Your task to perform on an android device: Open my contact list Image 0: 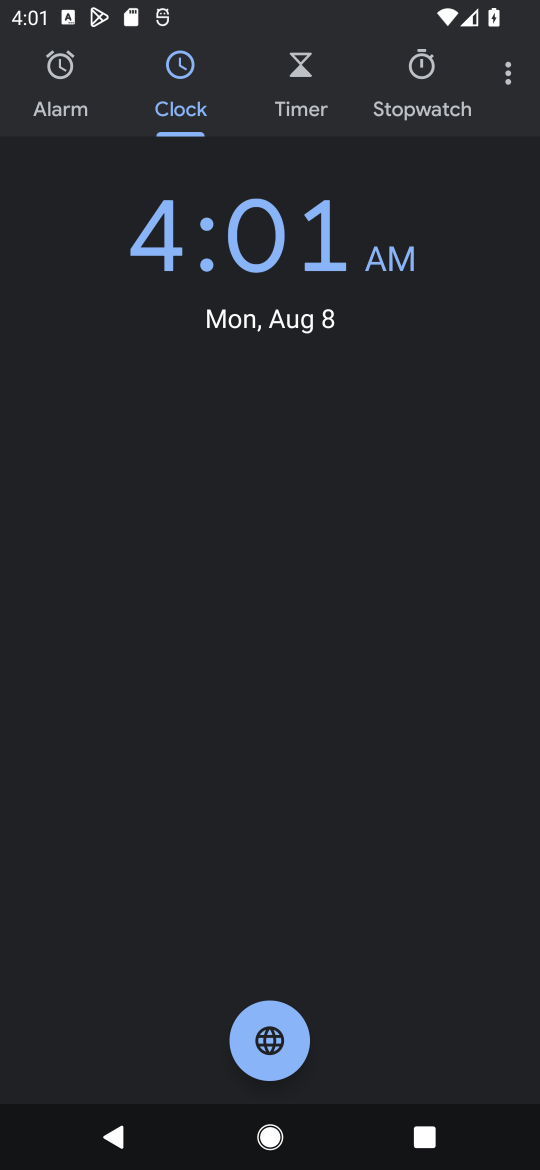
Step 0: click (271, 1140)
Your task to perform on an android device: Open my contact list Image 1: 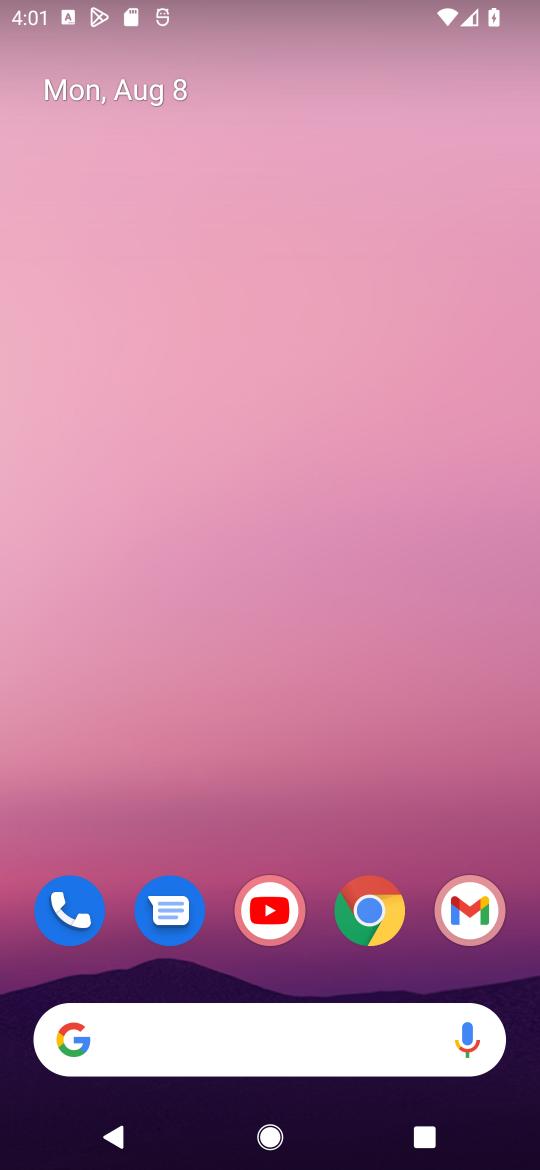
Step 1: click (62, 911)
Your task to perform on an android device: Open my contact list Image 2: 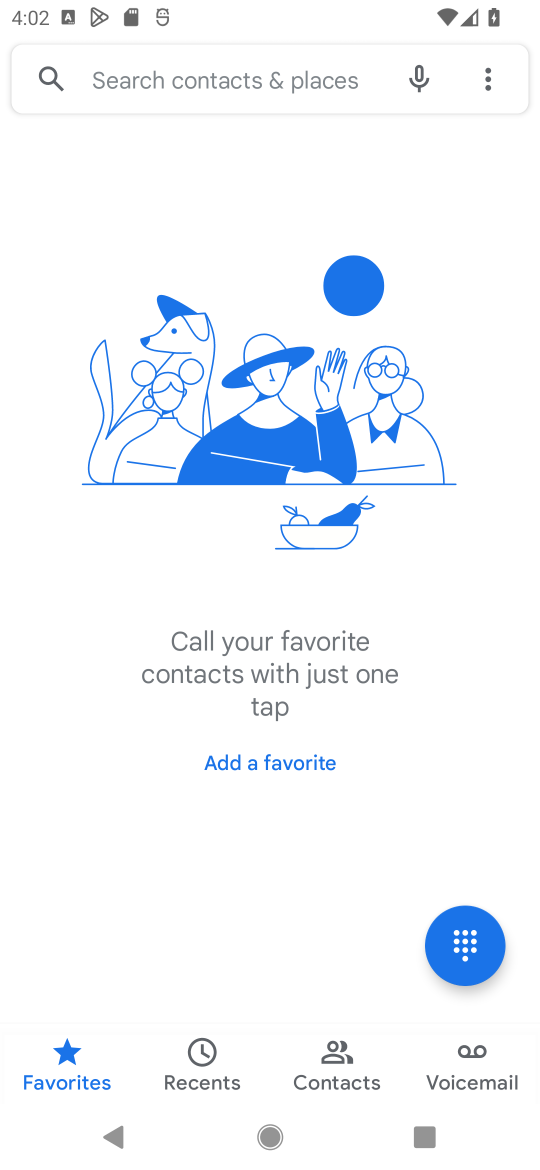
Step 2: click (335, 1081)
Your task to perform on an android device: Open my contact list Image 3: 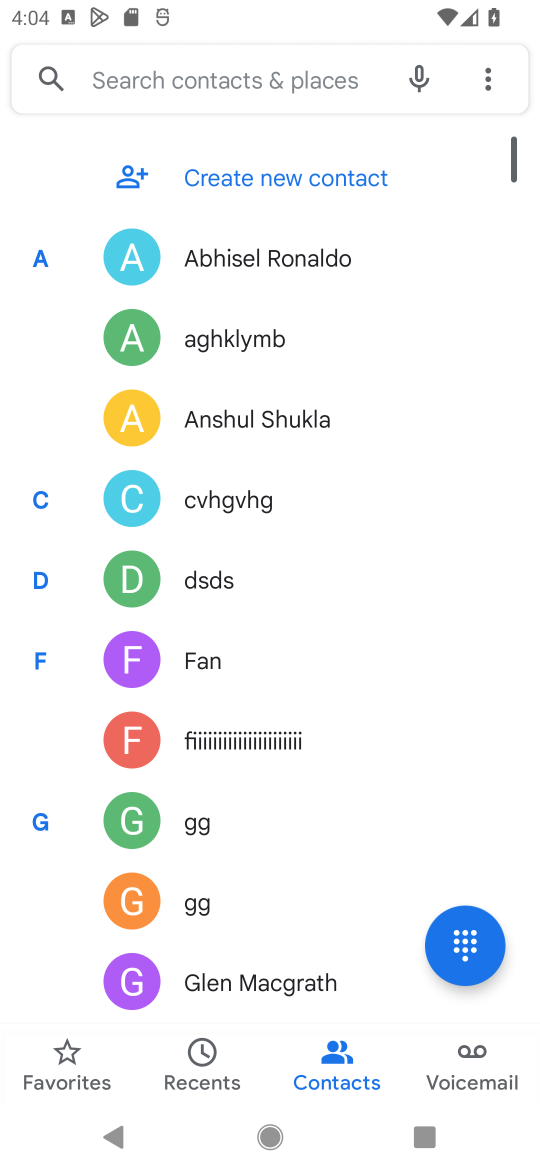
Step 3: task complete